Your task to perform on an android device: turn notification dots on Image 0: 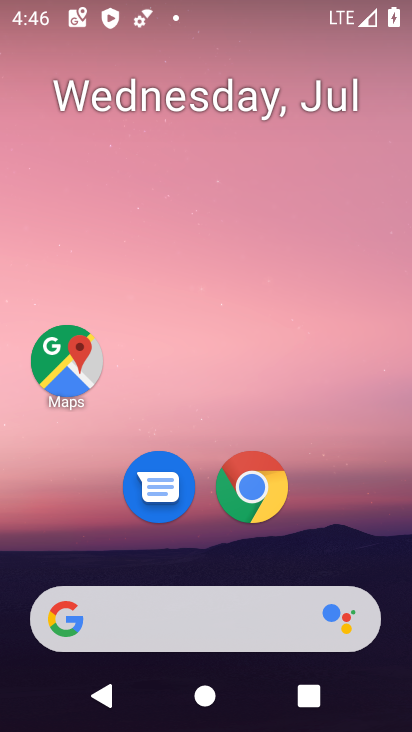
Step 0: drag from (185, 548) to (299, 1)
Your task to perform on an android device: turn notification dots on Image 1: 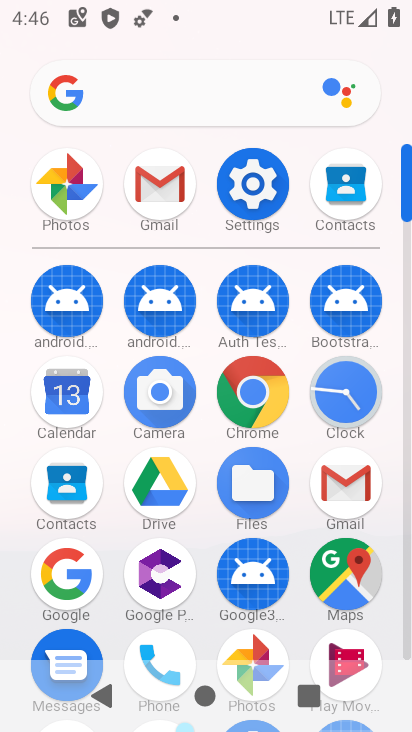
Step 1: click (245, 193)
Your task to perform on an android device: turn notification dots on Image 2: 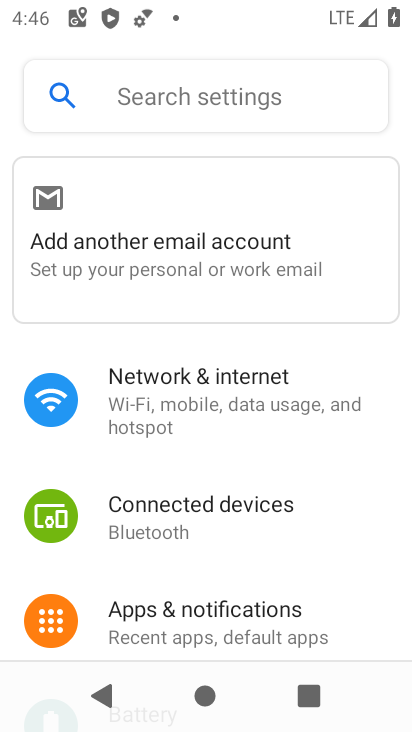
Step 2: click (227, 644)
Your task to perform on an android device: turn notification dots on Image 3: 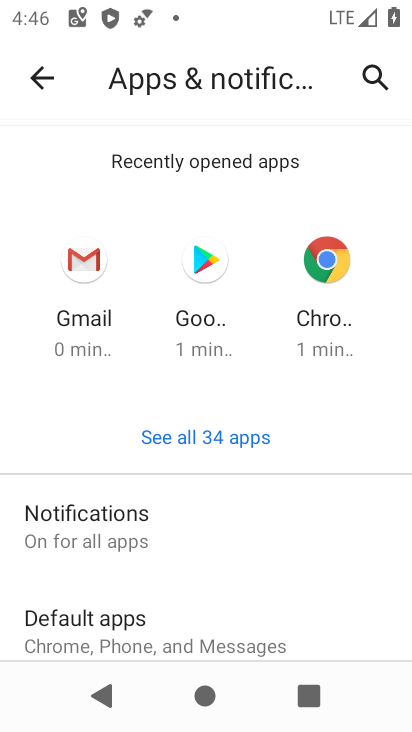
Step 3: click (122, 514)
Your task to perform on an android device: turn notification dots on Image 4: 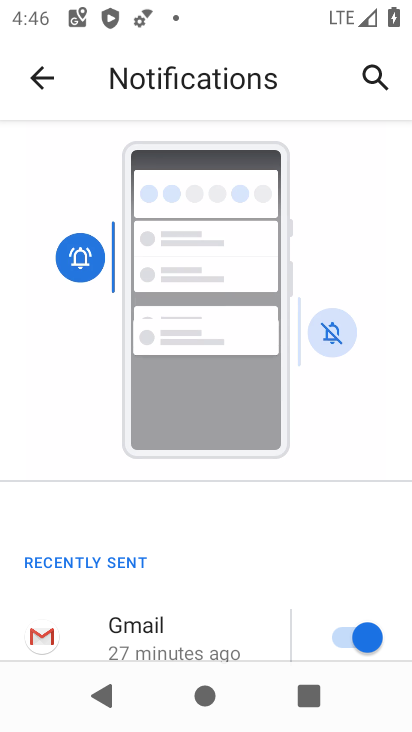
Step 4: drag from (127, 625) to (273, 80)
Your task to perform on an android device: turn notification dots on Image 5: 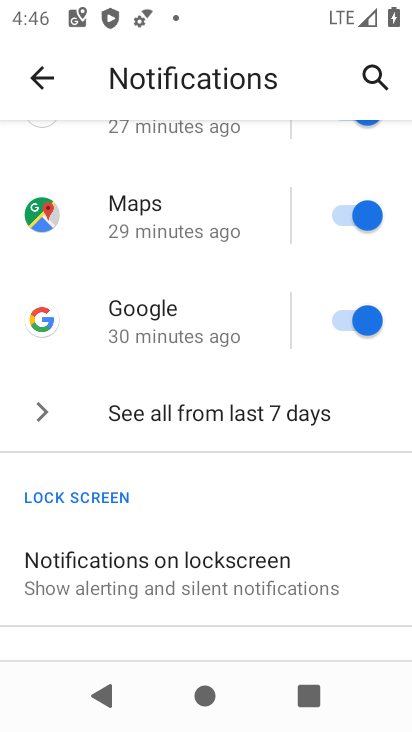
Step 5: drag from (176, 584) to (247, 137)
Your task to perform on an android device: turn notification dots on Image 6: 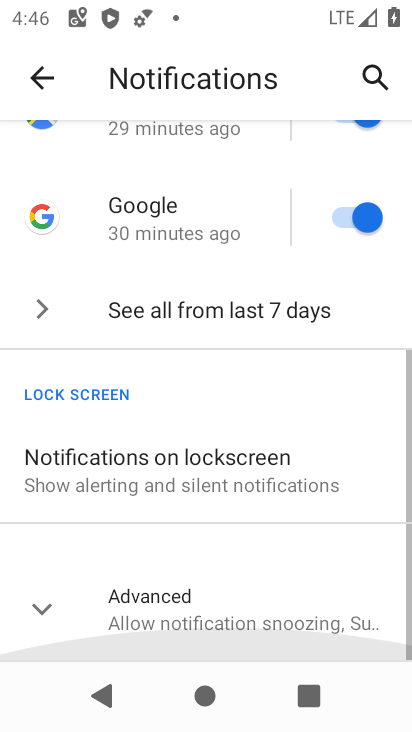
Step 6: click (161, 581)
Your task to perform on an android device: turn notification dots on Image 7: 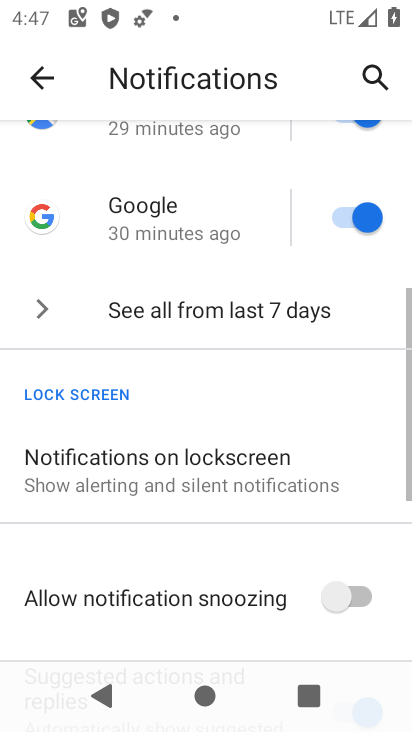
Step 7: task complete